Your task to perform on an android device: Go to privacy settings Image 0: 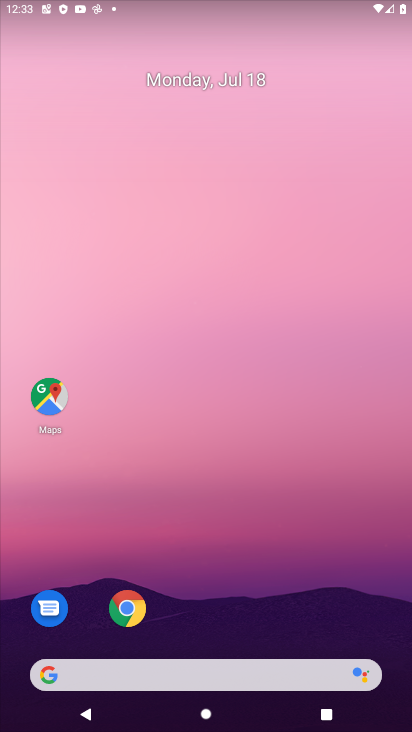
Step 0: drag from (387, 651) to (198, 73)
Your task to perform on an android device: Go to privacy settings Image 1: 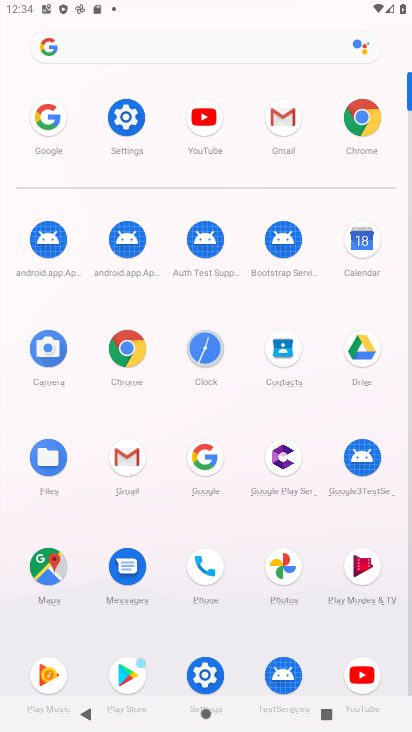
Step 1: click (199, 686)
Your task to perform on an android device: Go to privacy settings Image 2: 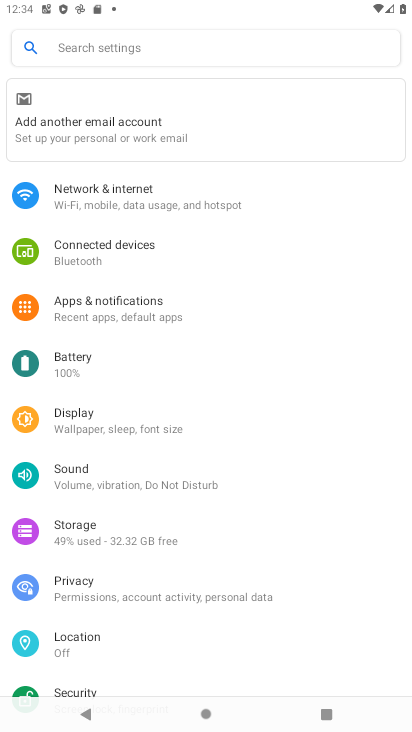
Step 2: drag from (122, 634) to (154, 263)
Your task to perform on an android device: Go to privacy settings Image 3: 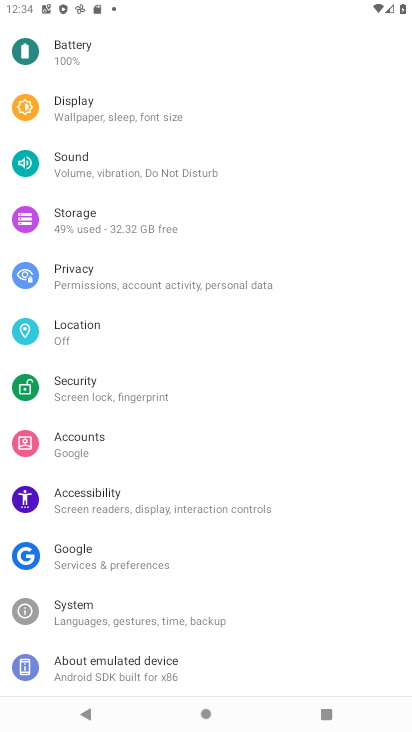
Step 3: click (109, 277)
Your task to perform on an android device: Go to privacy settings Image 4: 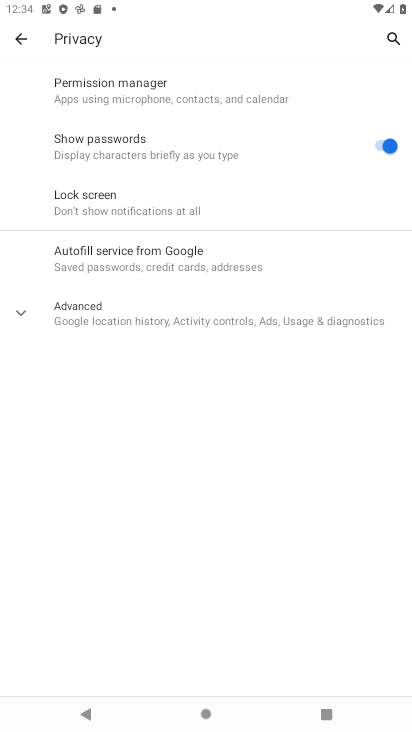
Step 4: task complete